Your task to perform on an android device: toggle notification dots Image 0: 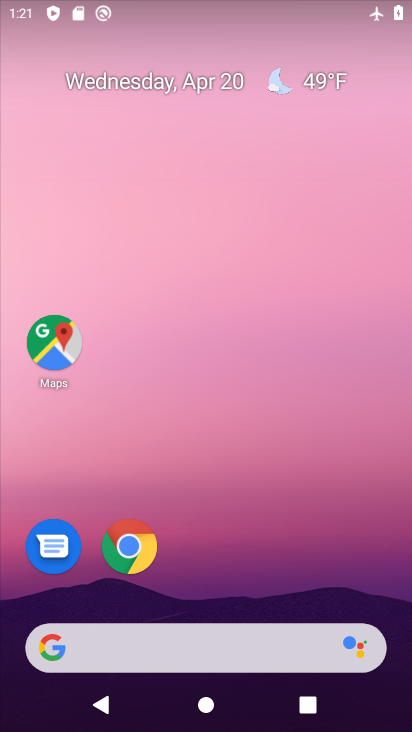
Step 0: drag from (228, 607) to (260, 187)
Your task to perform on an android device: toggle notification dots Image 1: 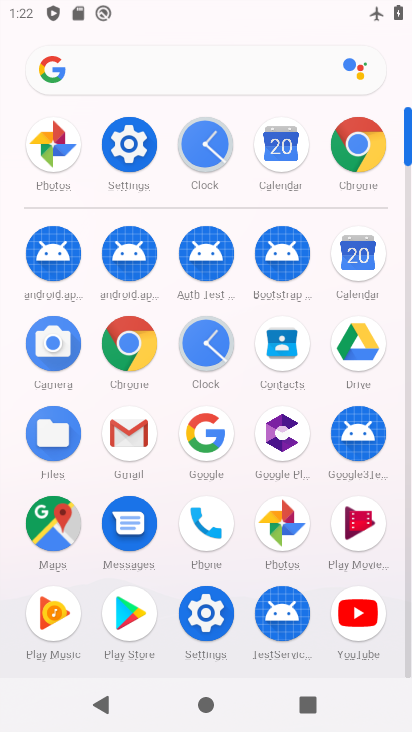
Step 1: click (213, 619)
Your task to perform on an android device: toggle notification dots Image 2: 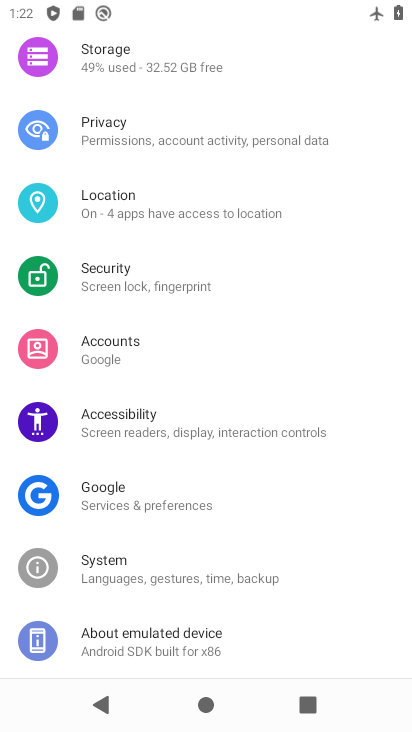
Step 2: drag from (169, 115) to (118, 480)
Your task to perform on an android device: toggle notification dots Image 3: 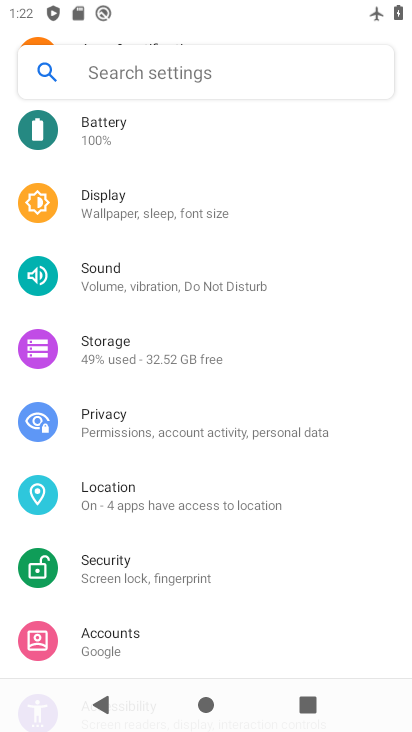
Step 3: drag from (138, 292) to (133, 620)
Your task to perform on an android device: toggle notification dots Image 4: 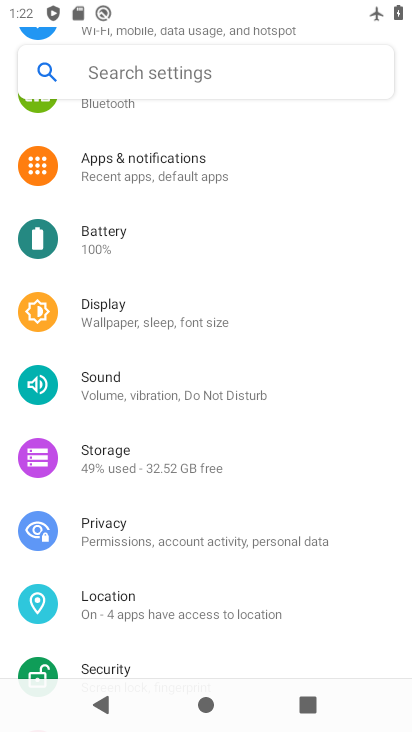
Step 4: click (185, 172)
Your task to perform on an android device: toggle notification dots Image 5: 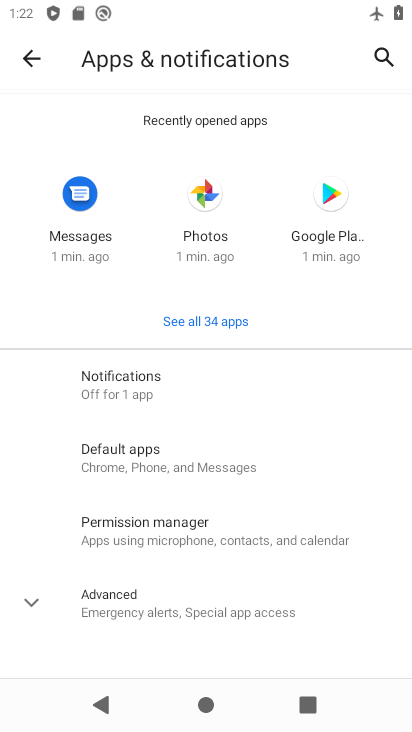
Step 5: click (151, 376)
Your task to perform on an android device: toggle notification dots Image 6: 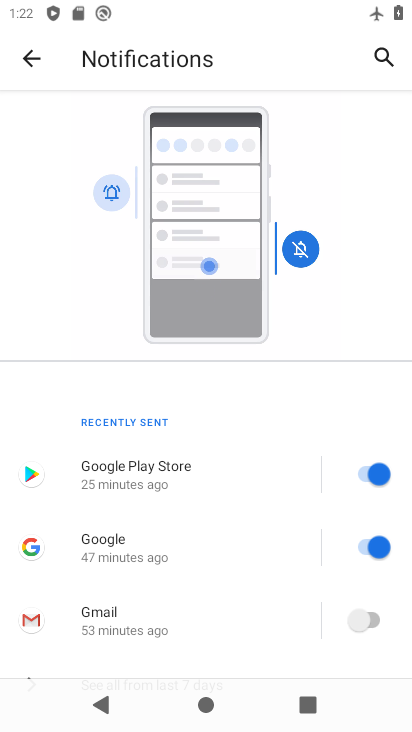
Step 6: drag from (202, 499) to (246, 102)
Your task to perform on an android device: toggle notification dots Image 7: 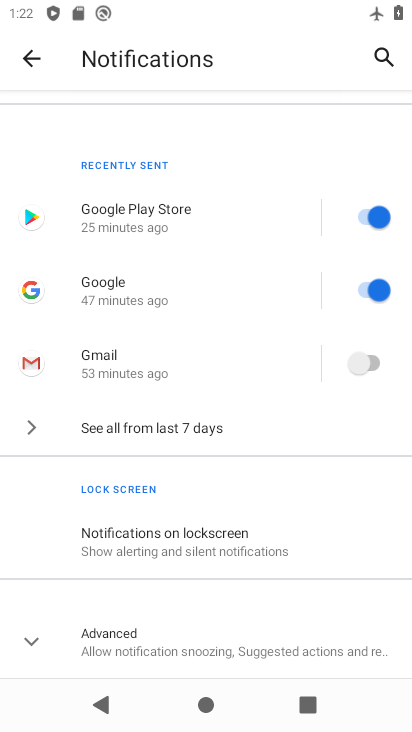
Step 7: drag from (196, 554) to (237, 124)
Your task to perform on an android device: toggle notification dots Image 8: 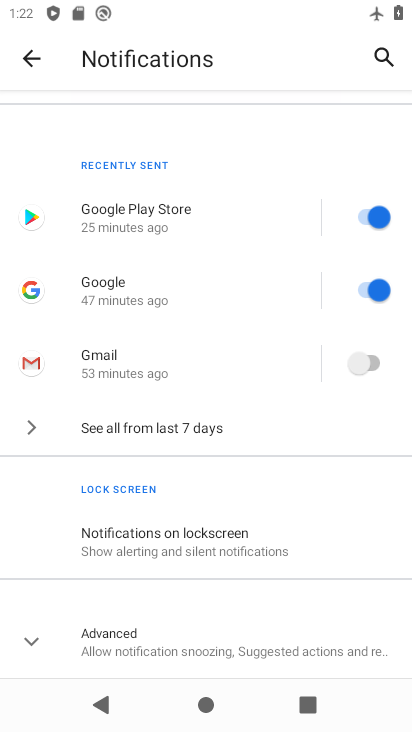
Step 8: click (215, 643)
Your task to perform on an android device: toggle notification dots Image 9: 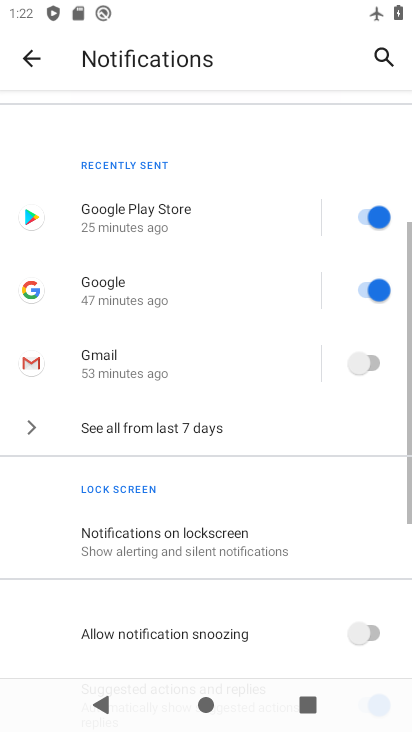
Step 9: drag from (207, 589) to (238, 211)
Your task to perform on an android device: toggle notification dots Image 10: 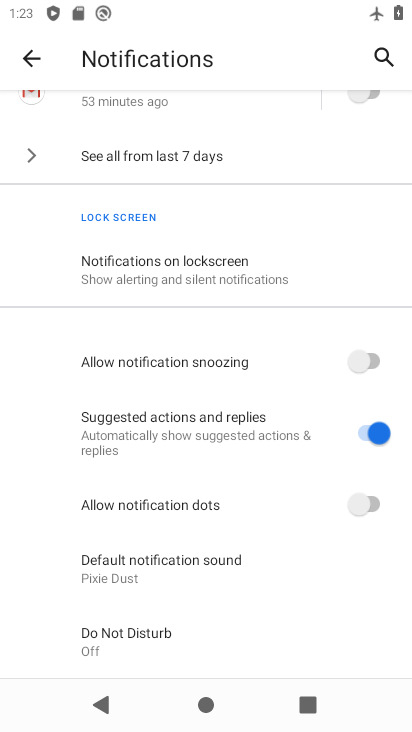
Step 10: click (370, 503)
Your task to perform on an android device: toggle notification dots Image 11: 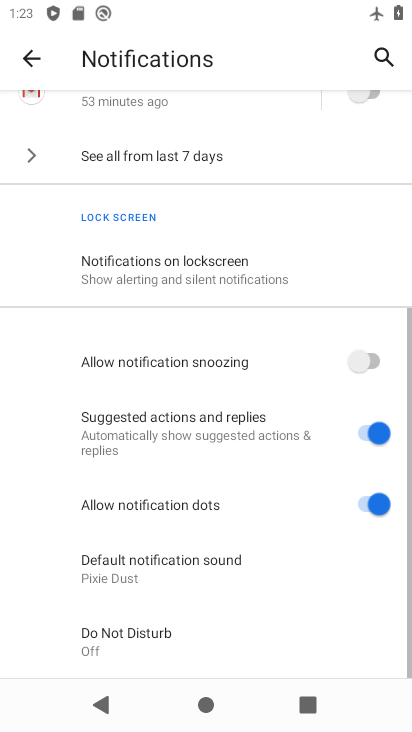
Step 11: task complete